Your task to perform on an android device: turn on translation in the chrome app Image 0: 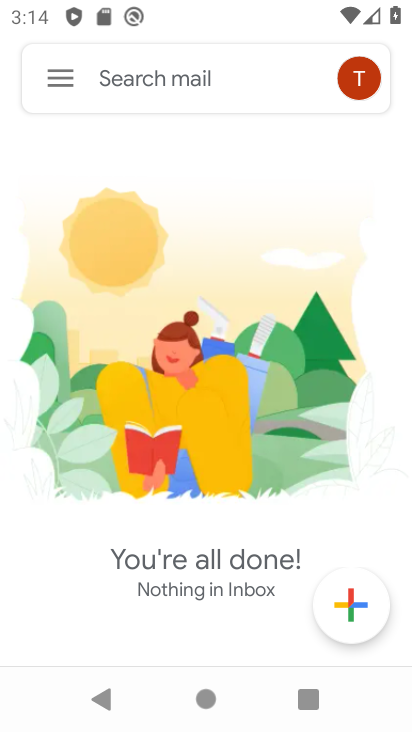
Step 0: press home button
Your task to perform on an android device: turn on translation in the chrome app Image 1: 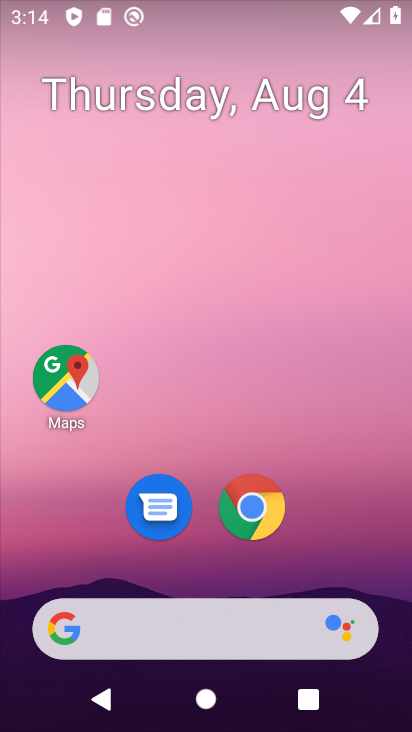
Step 1: drag from (166, 392) to (348, 327)
Your task to perform on an android device: turn on translation in the chrome app Image 2: 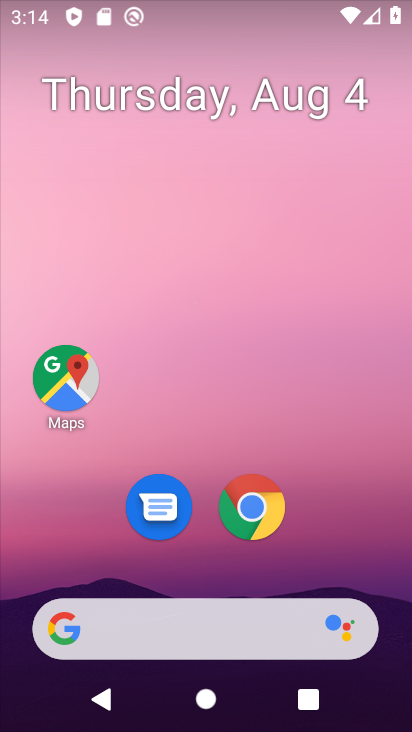
Step 2: drag from (30, 679) to (170, 25)
Your task to perform on an android device: turn on translation in the chrome app Image 3: 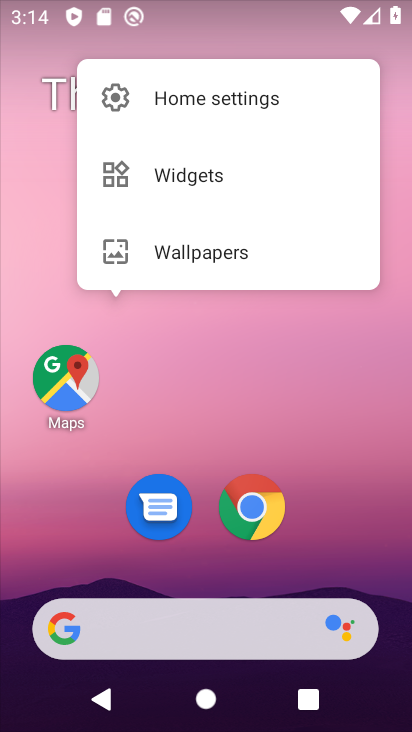
Step 3: click (268, 498)
Your task to perform on an android device: turn on translation in the chrome app Image 4: 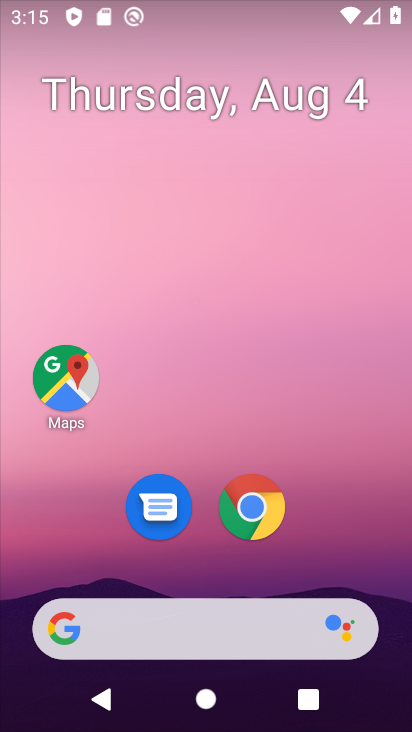
Step 4: click (221, 466)
Your task to perform on an android device: turn on translation in the chrome app Image 5: 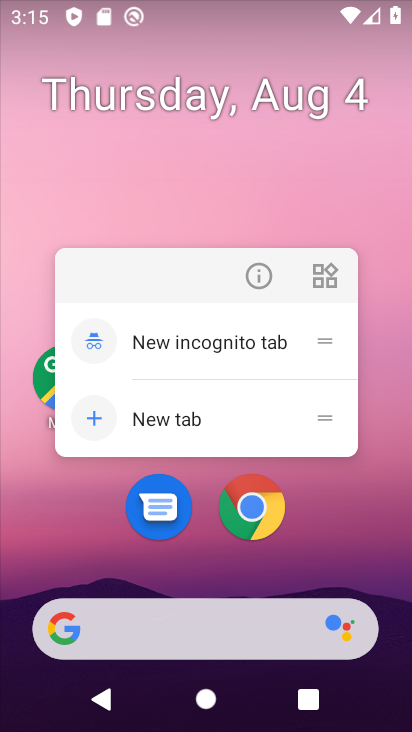
Step 5: task complete